Your task to perform on an android device: Open calendar and show me the third week of next month Image 0: 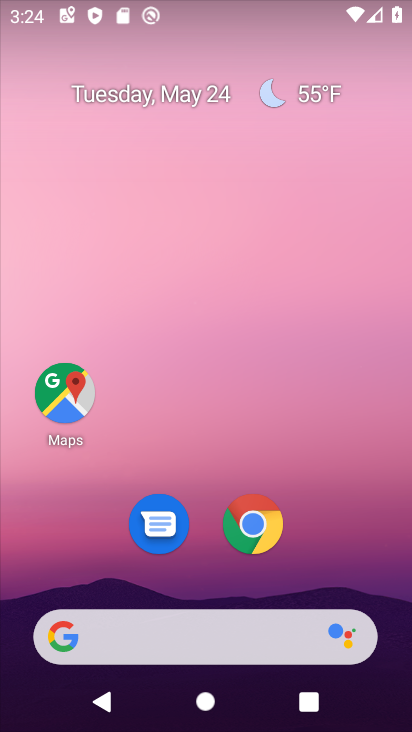
Step 0: drag from (251, 429) to (305, 0)
Your task to perform on an android device: Open calendar and show me the third week of next month Image 1: 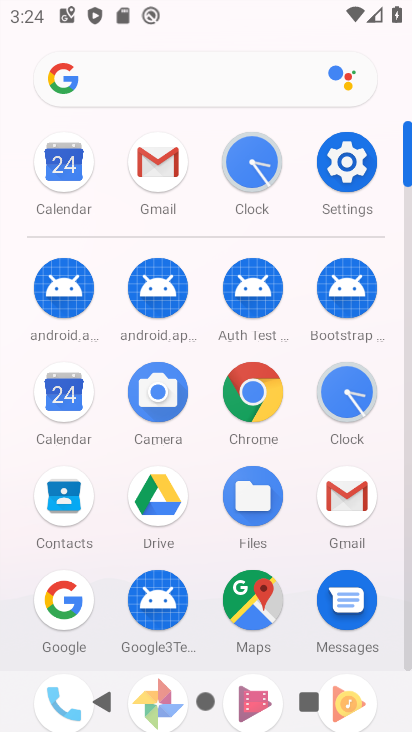
Step 1: click (65, 380)
Your task to perform on an android device: Open calendar and show me the third week of next month Image 2: 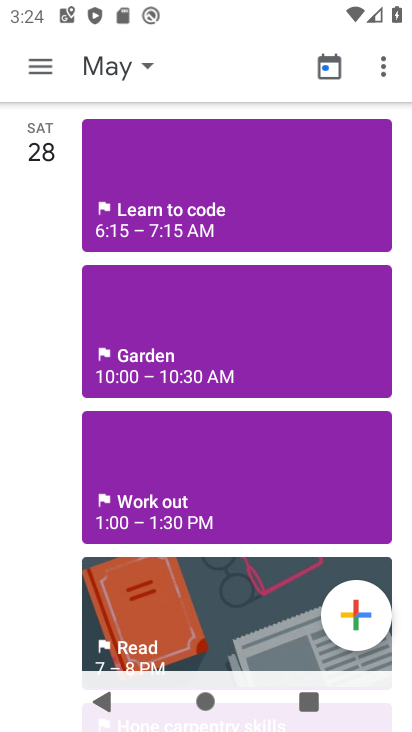
Step 2: click (35, 62)
Your task to perform on an android device: Open calendar and show me the third week of next month Image 3: 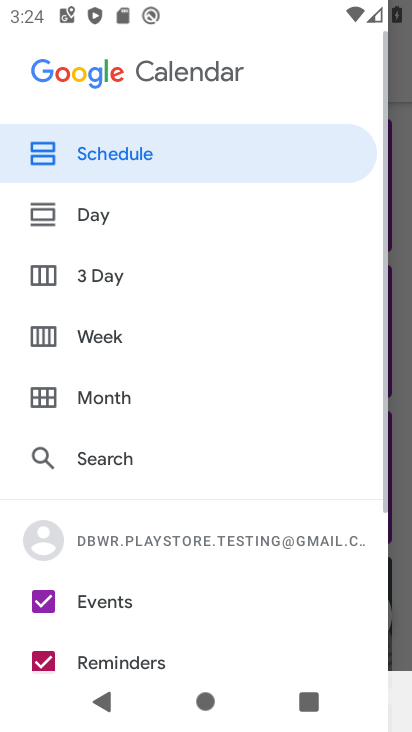
Step 3: click (43, 380)
Your task to perform on an android device: Open calendar and show me the third week of next month Image 4: 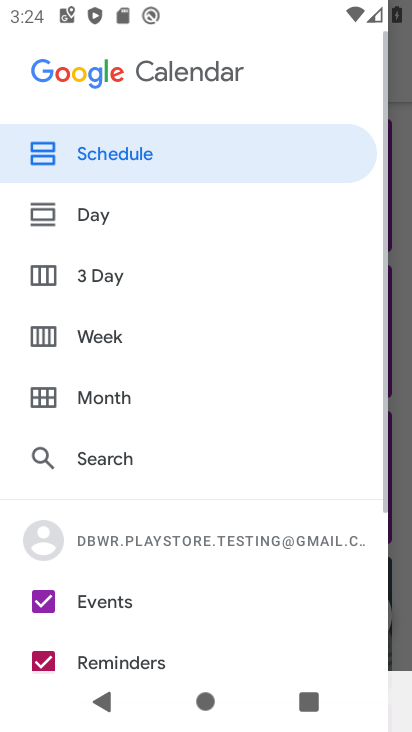
Step 4: click (43, 391)
Your task to perform on an android device: Open calendar and show me the third week of next month Image 5: 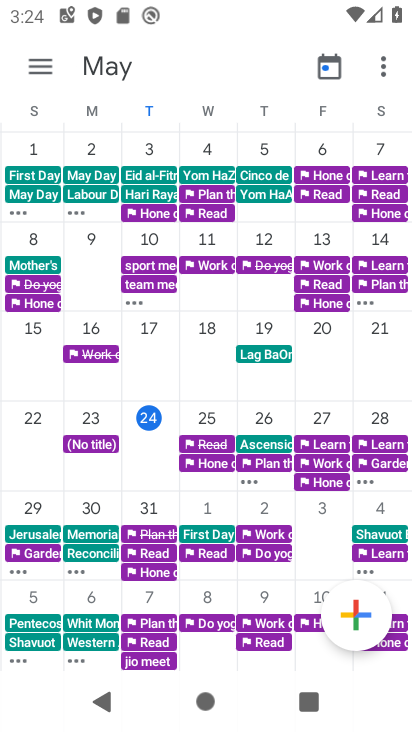
Step 5: drag from (382, 381) to (0, 416)
Your task to perform on an android device: Open calendar and show me the third week of next month Image 6: 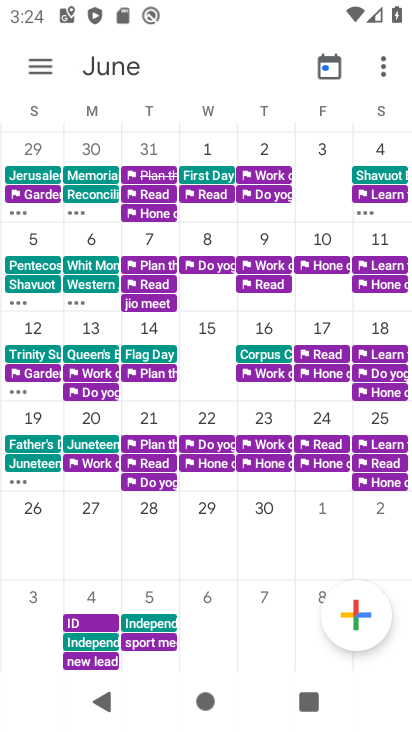
Step 6: click (31, 411)
Your task to perform on an android device: Open calendar and show me the third week of next month Image 7: 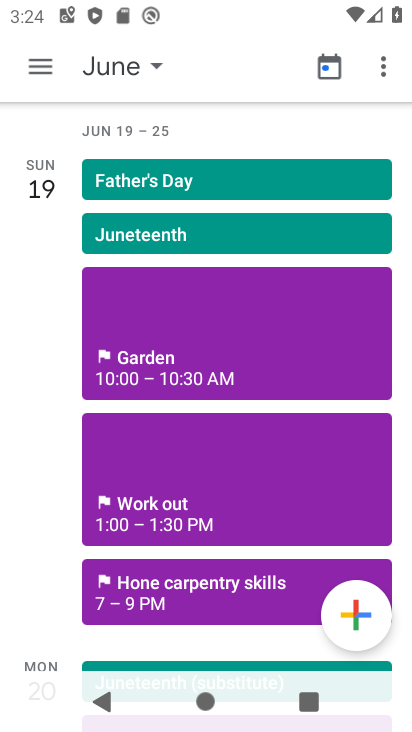
Step 7: click (43, 62)
Your task to perform on an android device: Open calendar and show me the third week of next month Image 8: 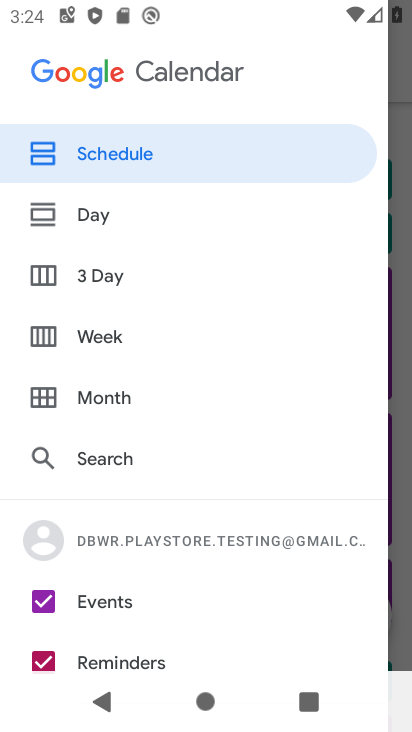
Step 8: click (45, 335)
Your task to perform on an android device: Open calendar and show me the third week of next month Image 9: 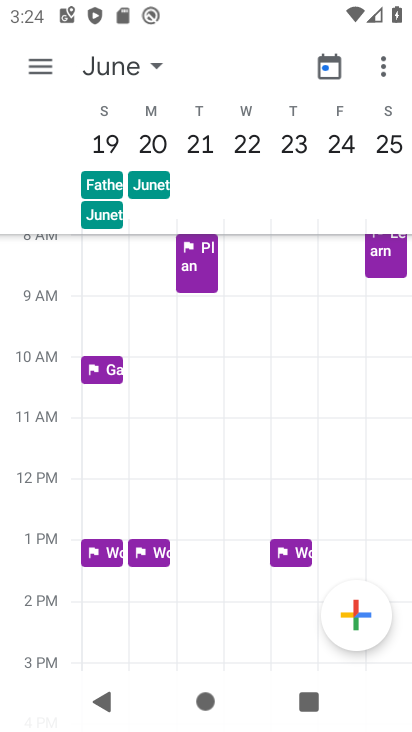
Step 9: task complete